Your task to perform on an android device: turn on bluetooth scan Image 0: 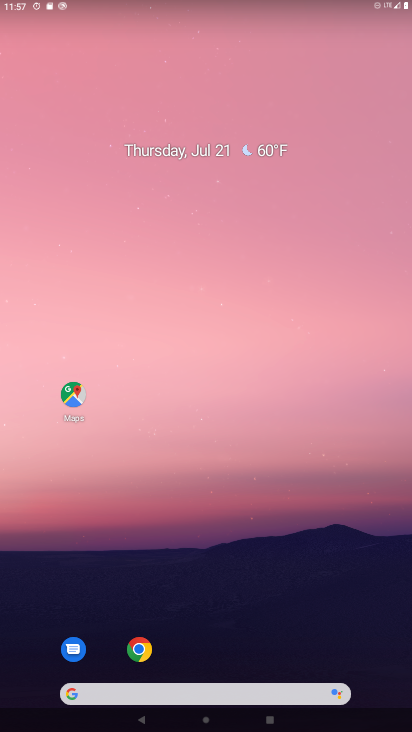
Step 0: drag from (381, 706) to (296, 122)
Your task to perform on an android device: turn on bluetooth scan Image 1: 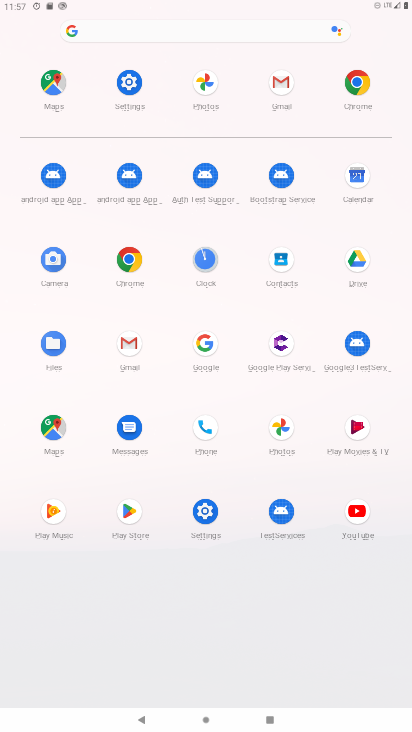
Step 1: click (122, 75)
Your task to perform on an android device: turn on bluetooth scan Image 2: 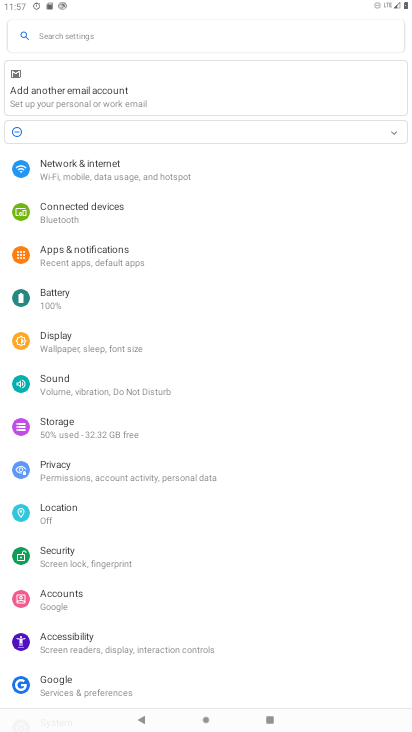
Step 2: click (44, 515)
Your task to perform on an android device: turn on bluetooth scan Image 3: 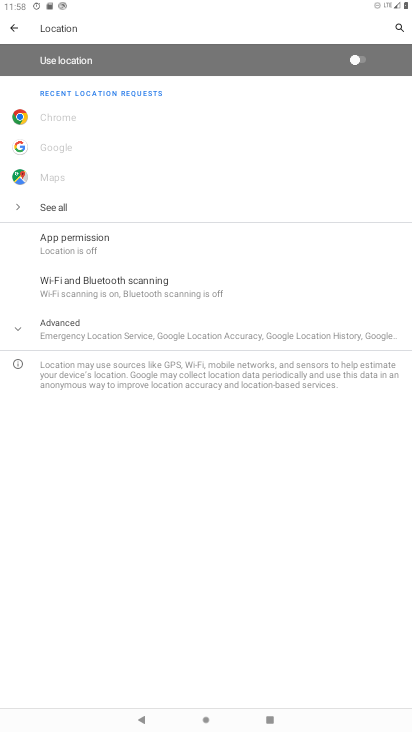
Step 3: click (73, 274)
Your task to perform on an android device: turn on bluetooth scan Image 4: 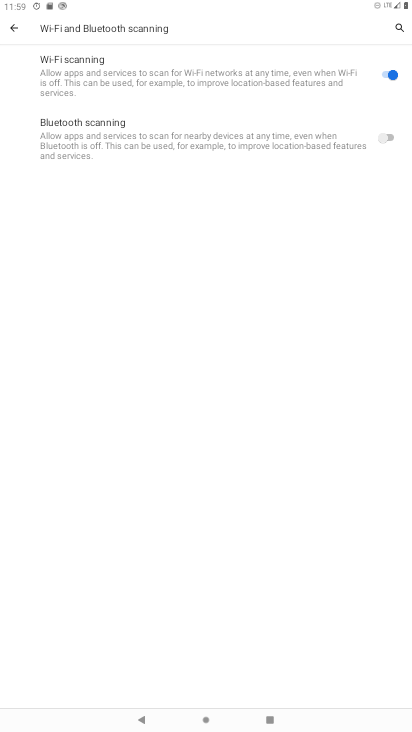
Step 4: click (384, 132)
Your task to perform on an android device: turn on bluetooth scan Image 5: 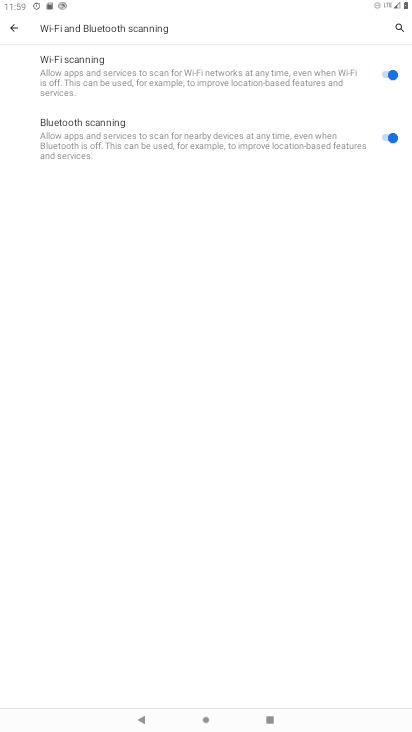
Step 5: task complete